Your task to perform on an android device: toggle wifi Image 0: 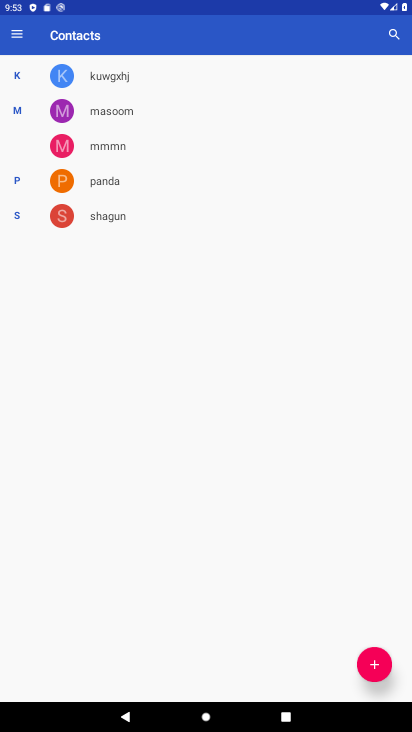
Step 0: press home button
Your task to perform on an android device: toggle wifi Image 1: 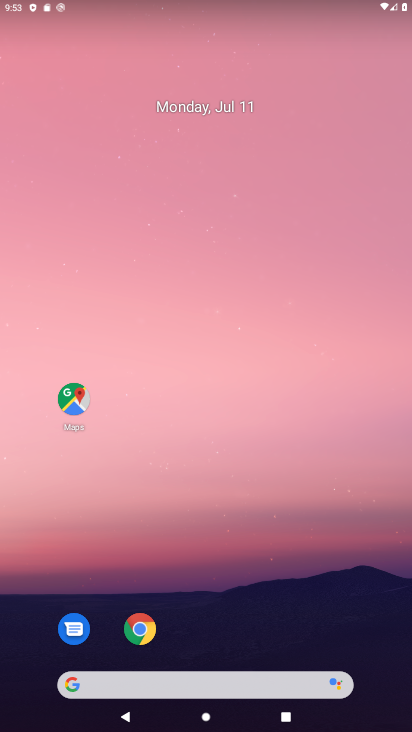
Step 1: drag from (252, 630) to (214, 115)
Your task to perform on an android device: toggle wifi Image 2: 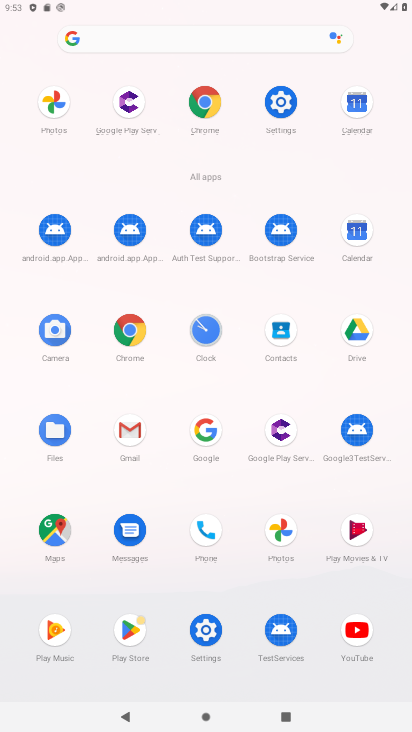
Step 2: click (280, 115)
Your task to perform on an android device: toggle wifi Image 3: 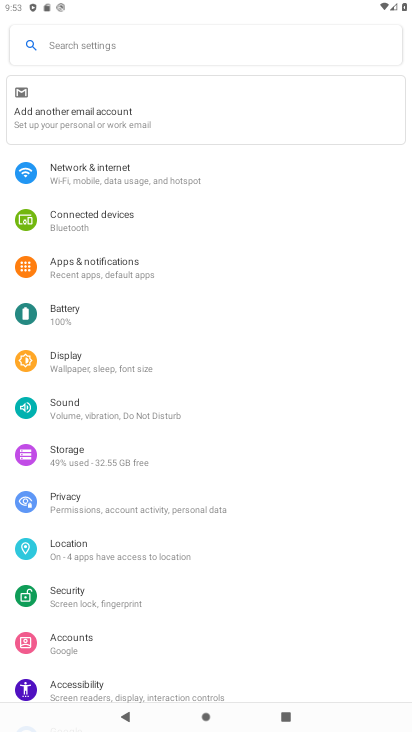
Step 3: click (231, 183)
Your task to perform on an android device: toggle wifi Image 4: 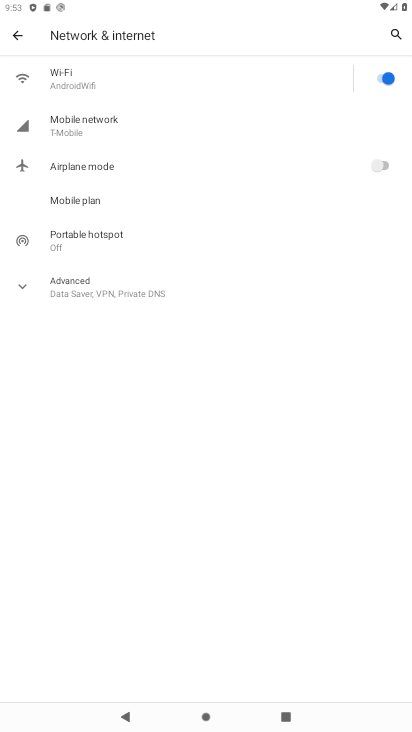
Step 4: task complete